Your task to perform on an android device: remove spam from my inbox in the gmail app Image 0: 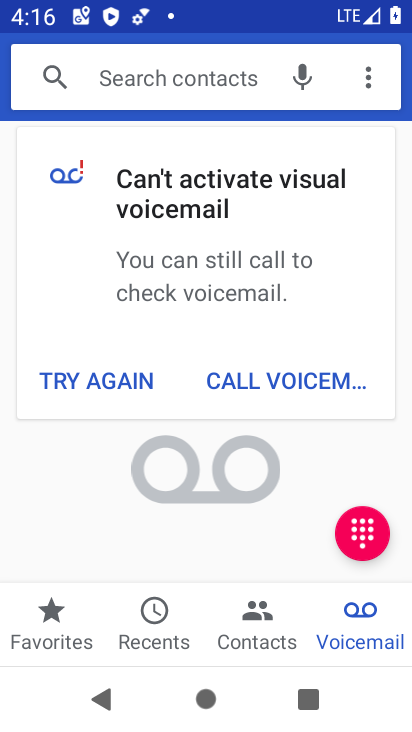
Step 0: press home button
Your task to perform on an android device: remove spam from my inbox in the gmail app Image 1: 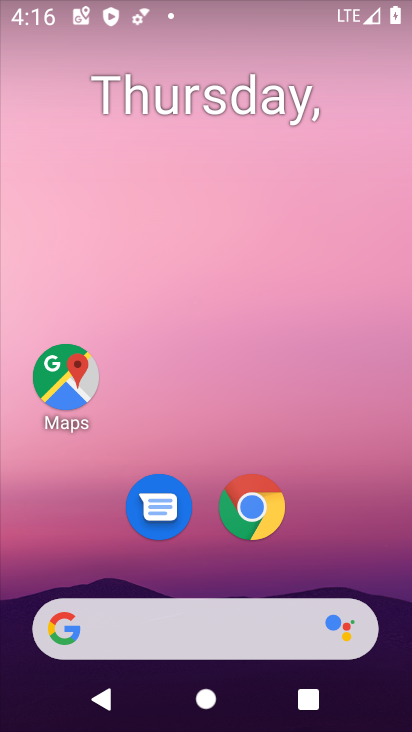
Step 1: drag from (359, 370) to (381, 88)
Your task to perform on an android device: remove spam from my inbox in the gmail app Image 2: 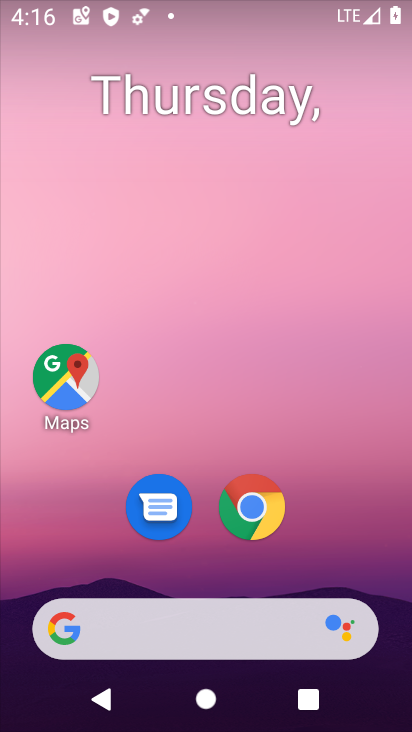
Step 2: drag from (348, 493) to (353, 252)
Your task to perform on an android device: remove spam from my inbox in the gmail app Image 3: 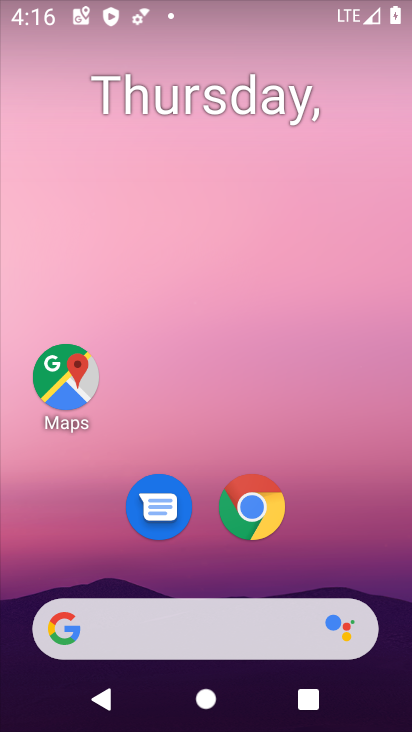
Step 3: drag from (348, 527) to (358, 235)
Your task to perform on an android device: remove spam from my inbox in the gmail app Image 4: 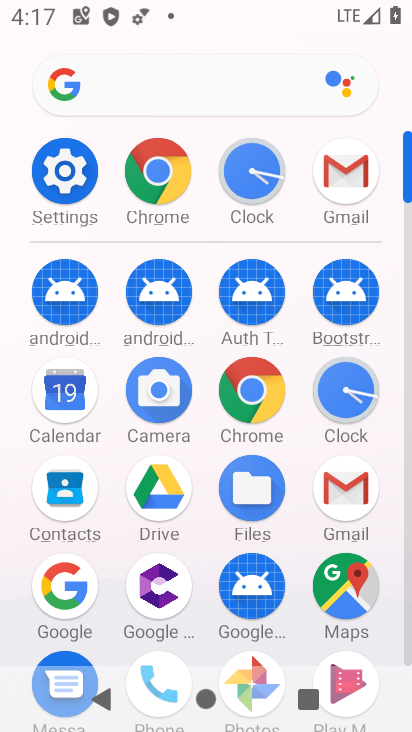
Step 4: click (349, 490)
Your task to perform on an android device: remove spam from my inbox in the gmail app Image 5: 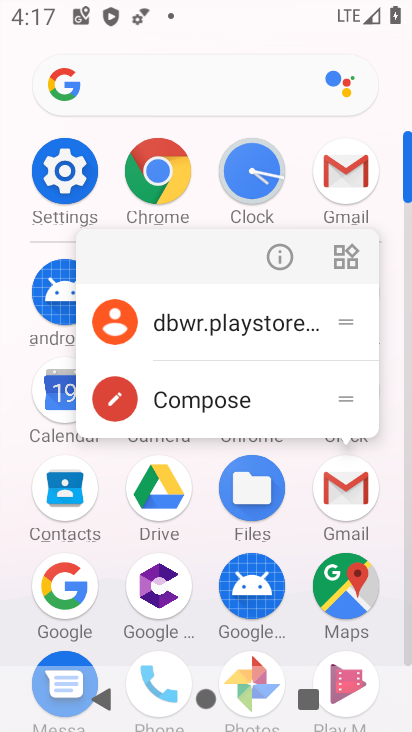
Step 5: click (285, 266)
Your task to perform on an android device: remove spam from my inbox in the gmail app Image 6: 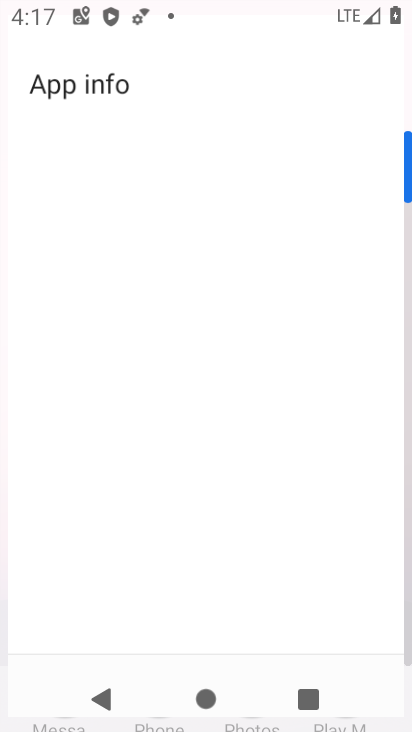
Step 6: click (285, 266)
Your task to perform on an android device: remove spam from my inbox in the gmail app Image 7: 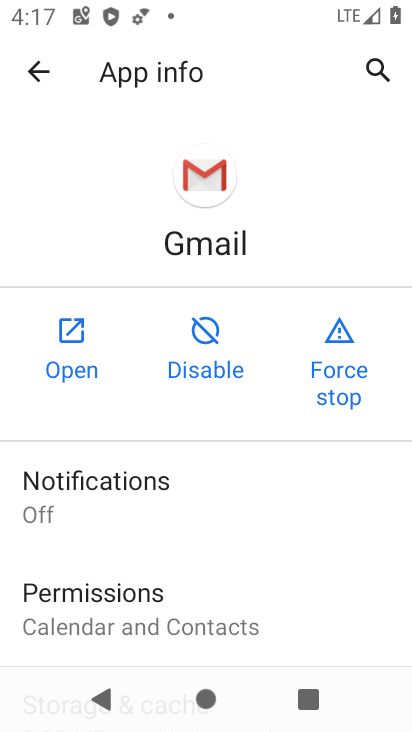
Step 7: press home button
Your task to perform on an android device: remove spam from my inbox in the gmail app Image 8: 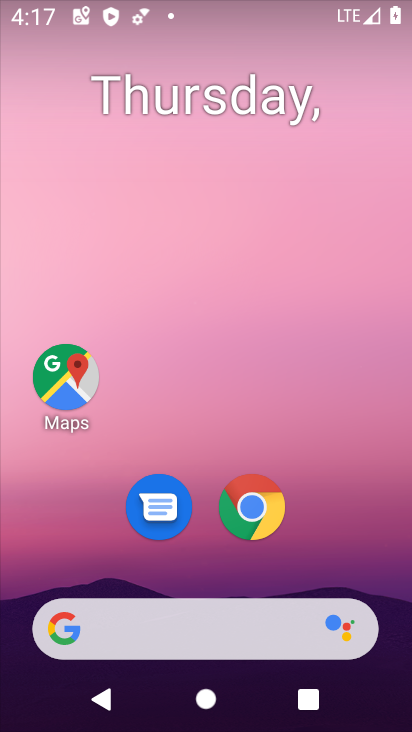
Step 8: drag from (311, 537) to (375, 180)
Your task to perform on an android device: remove spam from my inbox in the gmail app Image 9: 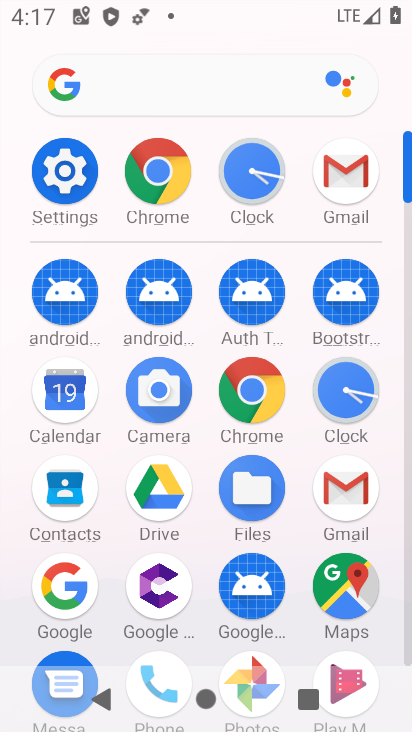
Step 9: click (360, 192)
Your task to perform on an android device: remove spam from my inbox in the gmail app Image 10: 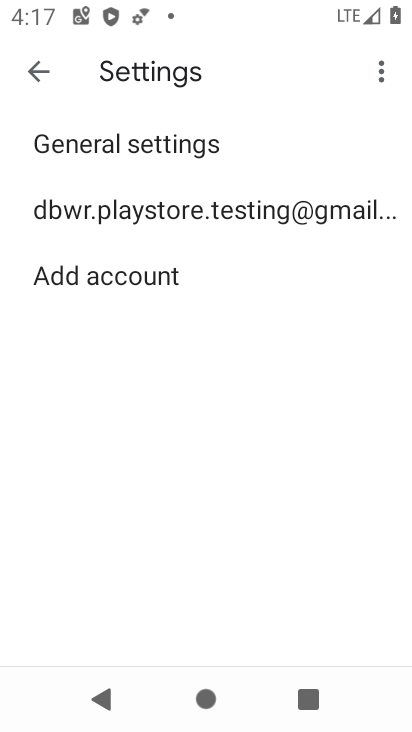
Step 10: click (36, 64)
Your task to perform on an android device: remove spam from my inbox in the gmail app Image 11: 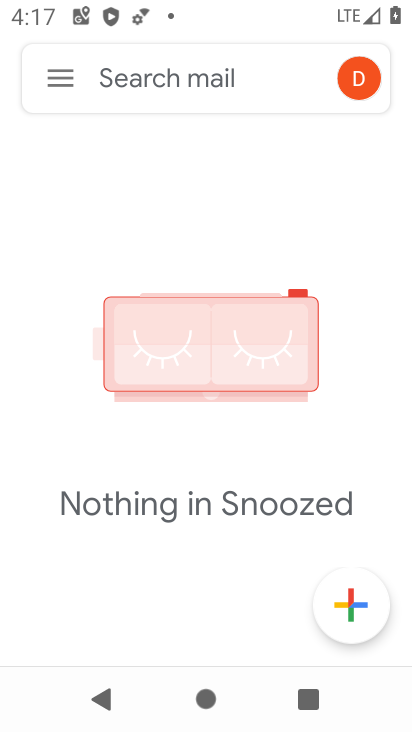
Step 11: click (44, 73)
Your task to perform on an android device: remove spam from my inbox in the gmail app Image 12: 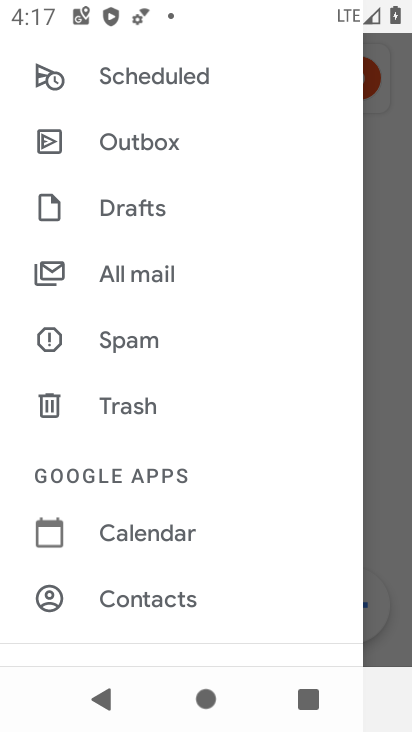
Step 12: task complete